Your task to perform on an android device: change the clock display to digital Image 0: 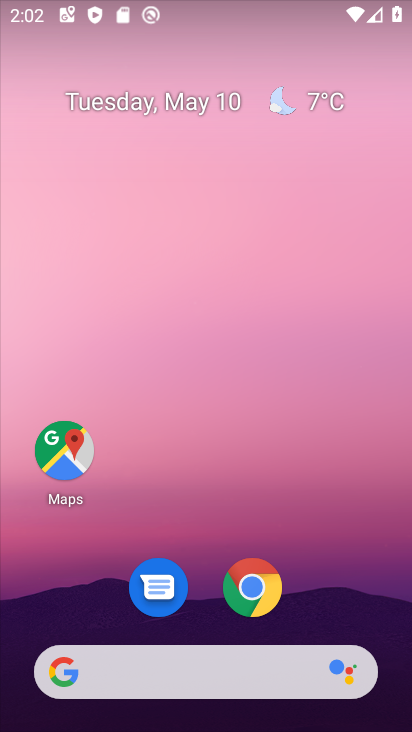
Step 0: drag from (325, 601) to (298, 143)
Your task to perform on an android device: change the clock display to digital Image 1: 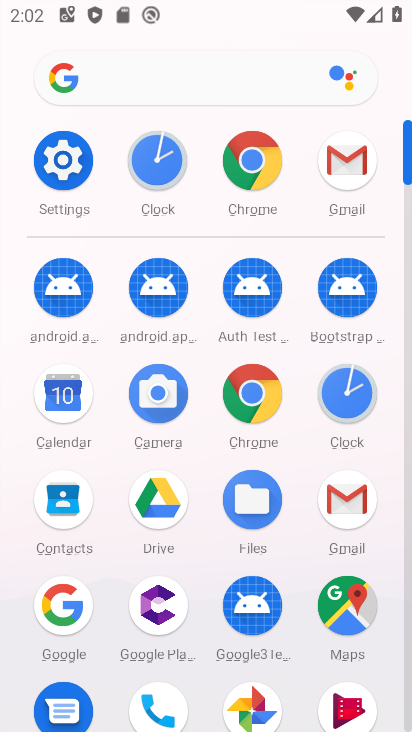
Step 1: click (343, 385)
Your task to perform on an android device: change the clock display to digital Image 2: 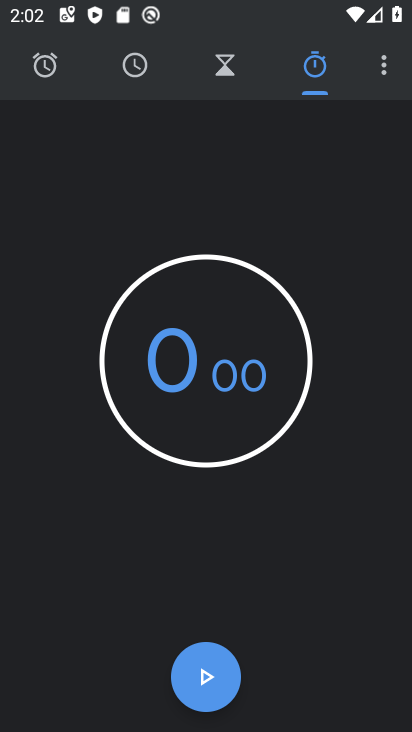
Step 2: click (379, 79)
Your task to perform on an android device: change the clock display to digital Image 3: 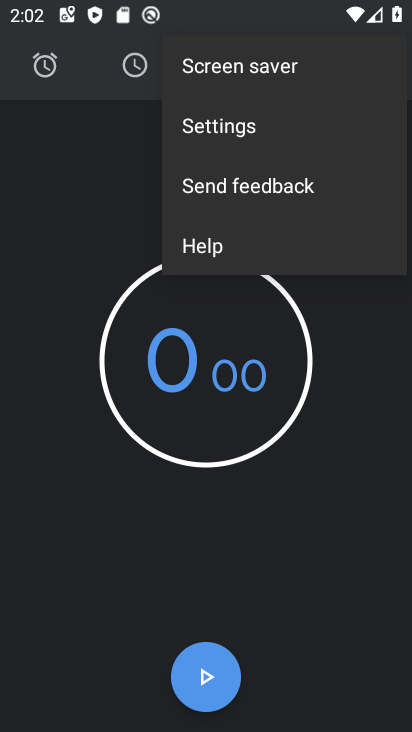
Step 3: click (232, 137)
Your task to perform on an android device: change the clock display to digital Image 4: 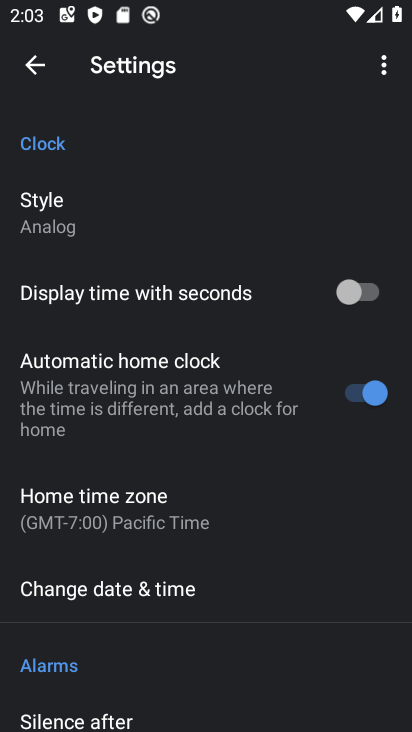
Step 4: click (192, 236)
Your task to perform on an android device: change the clock display to digital Image 5: 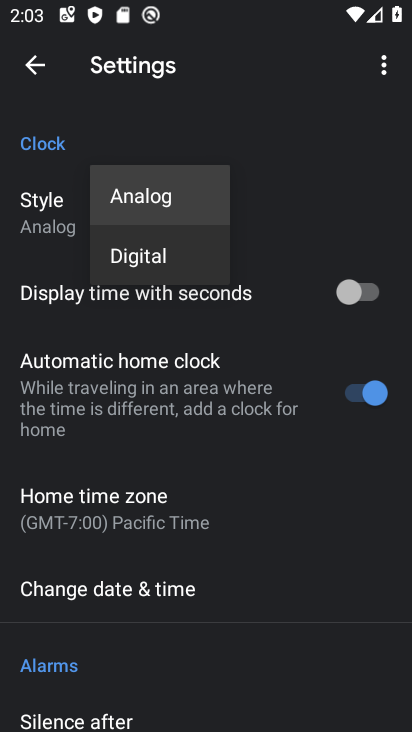
Step 5: click (153, 258)
Your task to perform on an android device: change the clock display to digital Image 6: 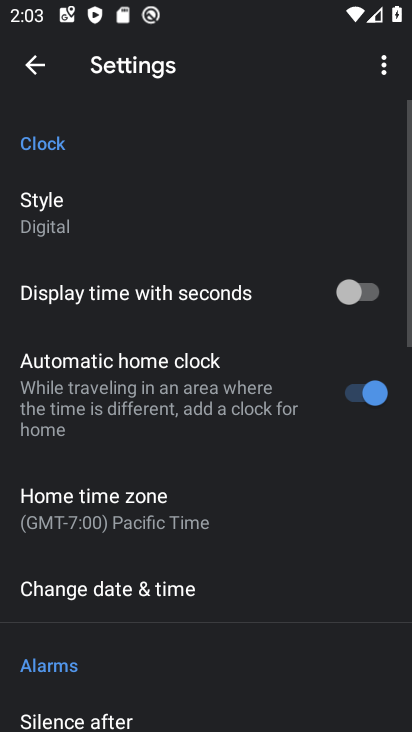
Step 6: task complete